Your task to perform on an android device: turn off notifications settings in the gmail app Image 0: 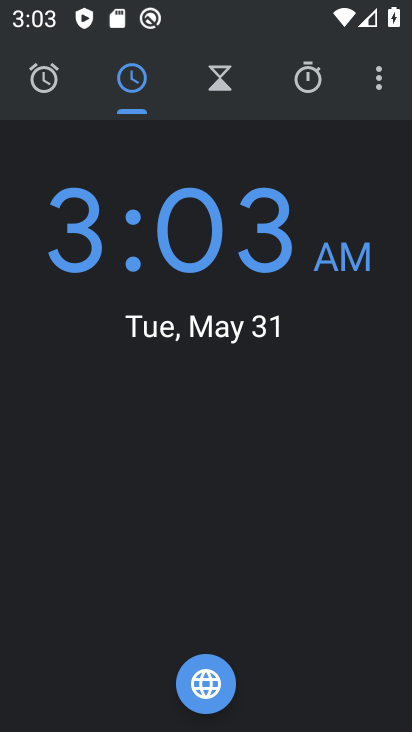
Step 0: press home button
Your task to perform on an android device: turn off notifications settings in the gmail app Image 1: 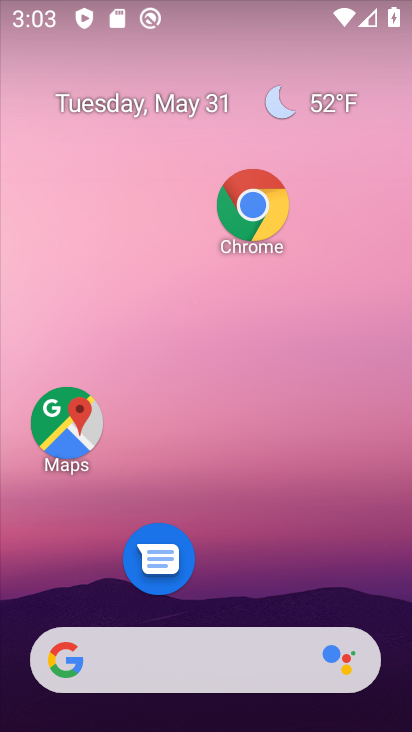
Step 1: drag from (247, 602) to (208, 250)
Your task to perform on an android device: turn off notifications settings in the gmail app Image 2: 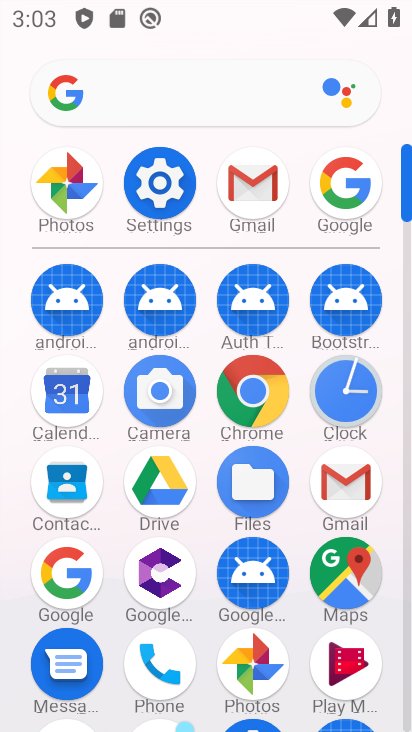
Step 2: click (270, 194)
Your task to perform on an android device: turn off notifications settings in the gmail app Image 3: 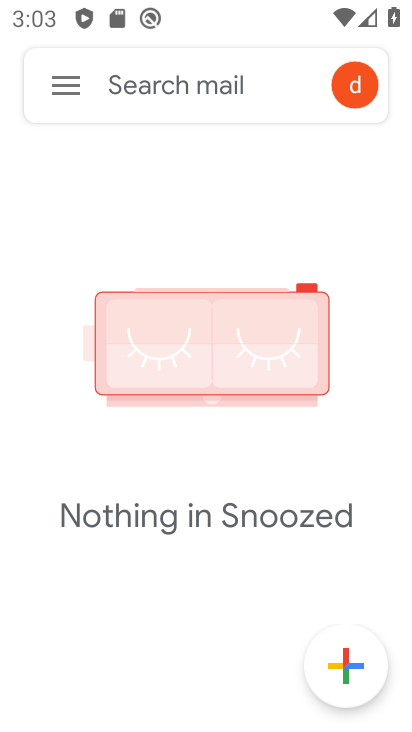
Step 3: click (45, 90)
Your task to perform on an android device: turn off notifications settings in the gmail app Image 4: 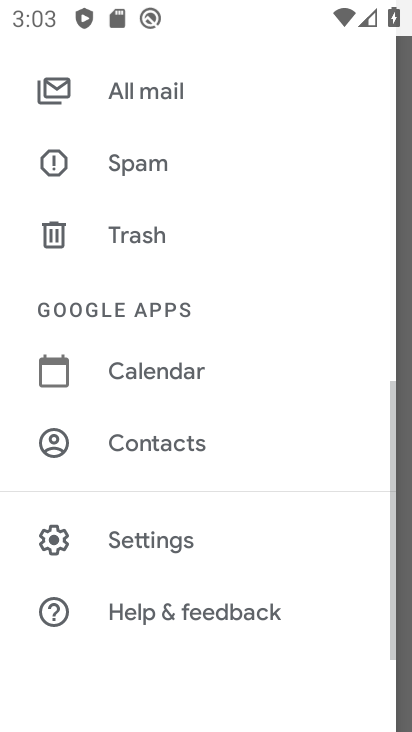
Step 4: click (164, 537)
Your task to perform on an android device: turn off notifications settings in the gmail app Image 5: 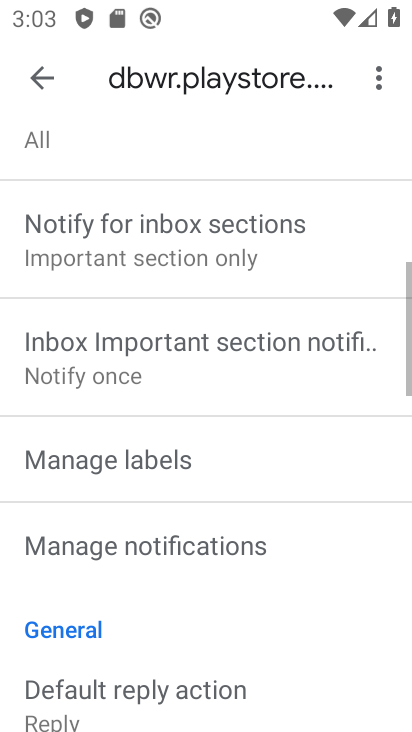
Step 5: drag from (156, 648) to (217, 340)
Your task to perform on an android device: turn off notifications settings in the gmail app Image 6: 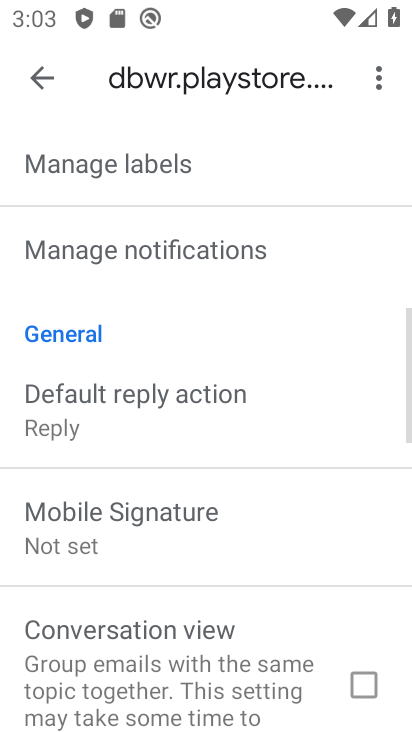
Step 6: drag from (203, 584) to (212, 507)
Your task to perform on an android device: turn off notifications settings in the gmail app Image 7: 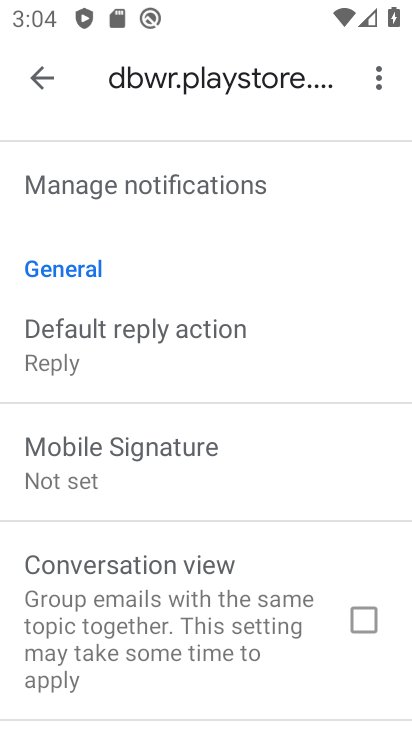
Step 7: click (190, 187)
Your task to perform on an android device: turn off notifications settings in the gmail app Image 8: 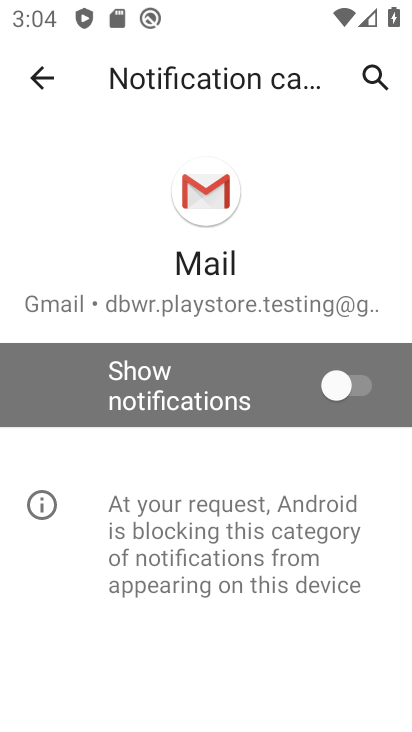
Step 8: task complete